Your task to perform on an android device: Go to eBay Image 0: 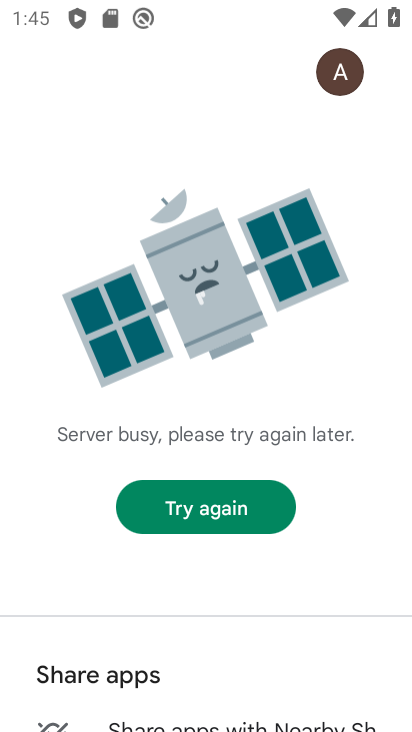
Step 0: press home button
Your task to perform on an android device: Go to eBay Image 1: 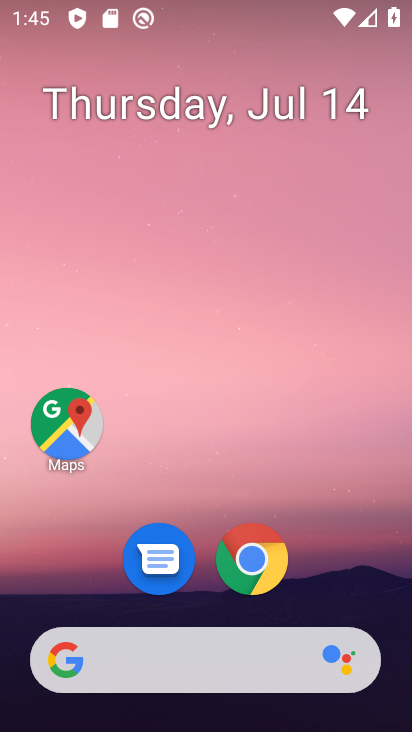
Step 1: drag from (229, 688) to (287, 193)
Your task to perform on an android device: Go to eBay Image 2: 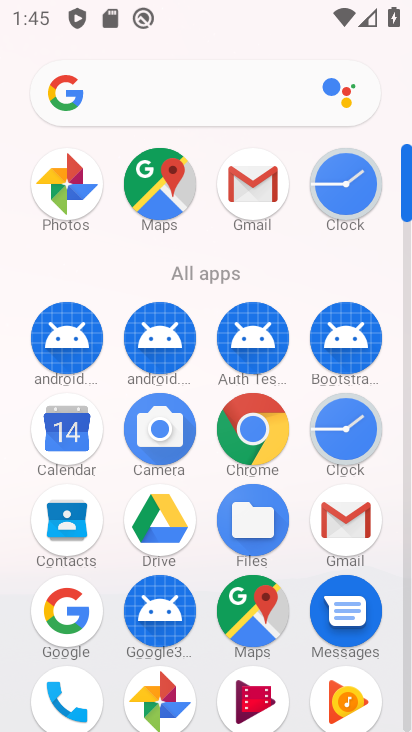
Step 2: click (252, 441)
Your task to perform on an android device: Go to eBay Image 3: 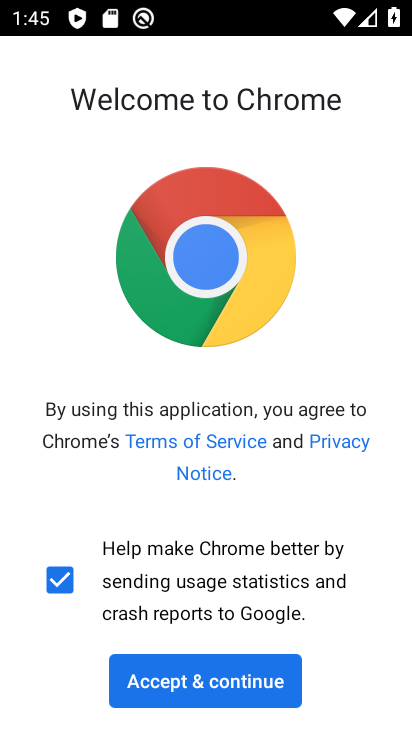
Step 3: click (208, 689)
Your task to perform on an android device: Go to eBay Image 4: 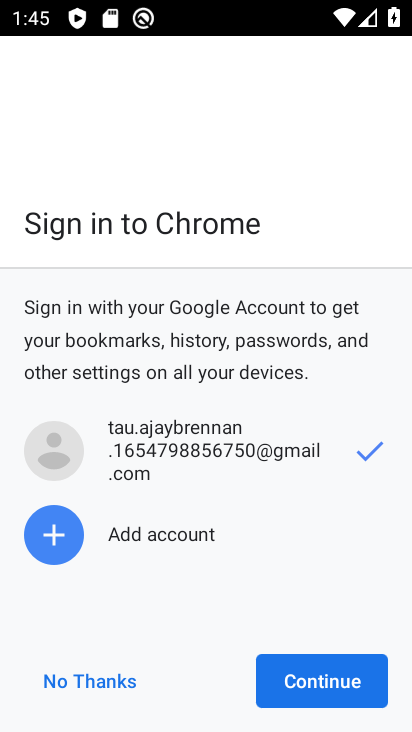
Step 4: click (293, 678)
Your task to perform on an android device: Go to eBay Image 5: 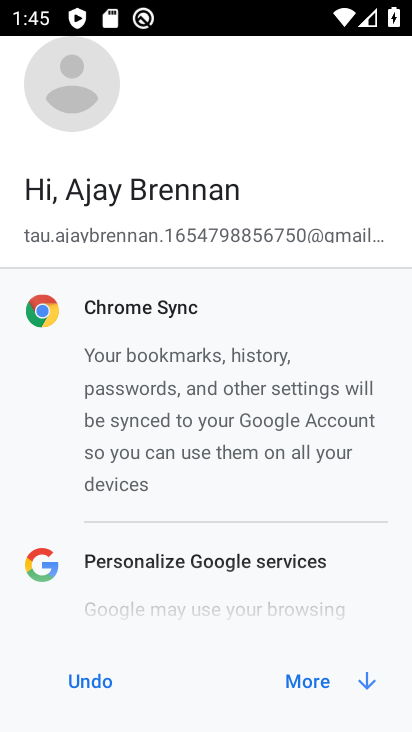
Step 5: click (298, 679)
Your task to perform on an android device: Go to eBay Image 6: 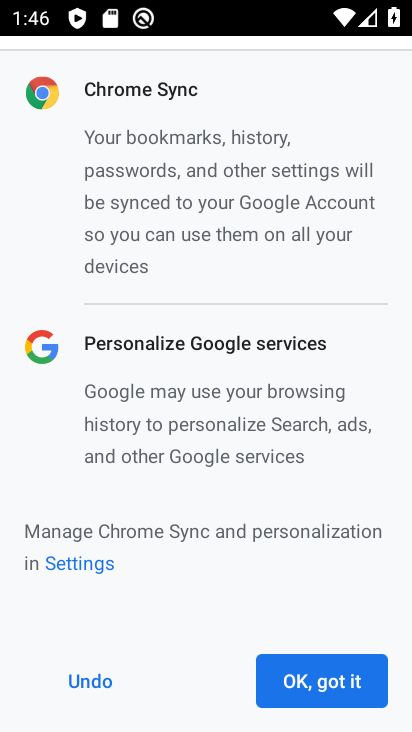
Step 6: click (297, 692)
Your task to perform on an android device: Go to eBay Image 7: 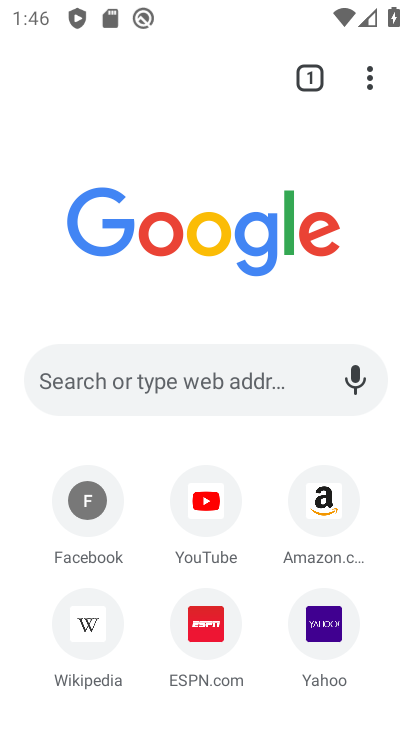
Step 7: click (167, 380)
Your task to perform on an android device: Go to eBay Image 8: 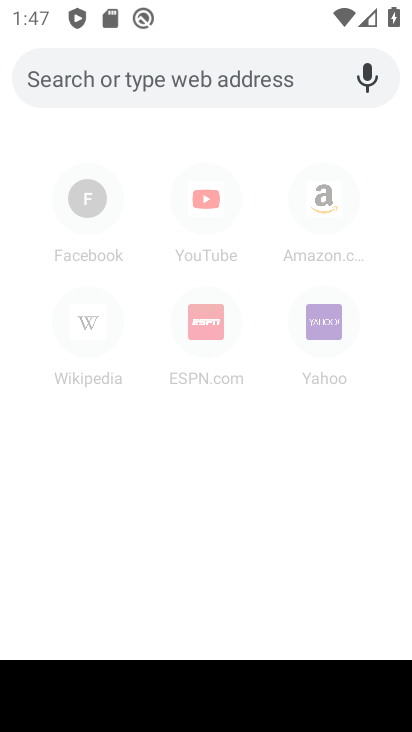
Step 8: type "ebay"
Your task to perform on an android device: Go to eBay Image 9: 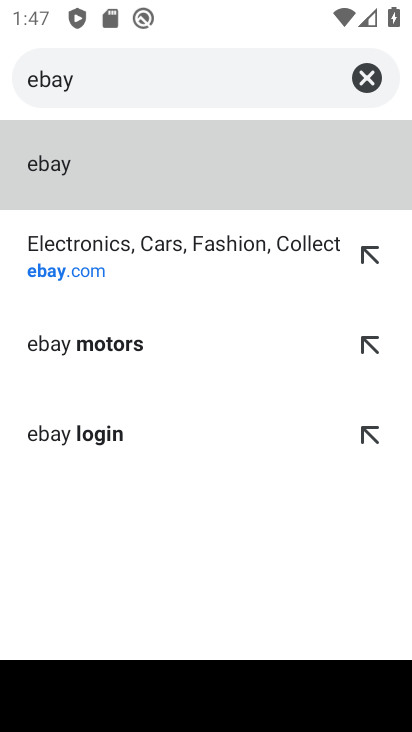
Step 9: click (180, 254)
Your task to perform on an android device: Go to eBay Image 10: 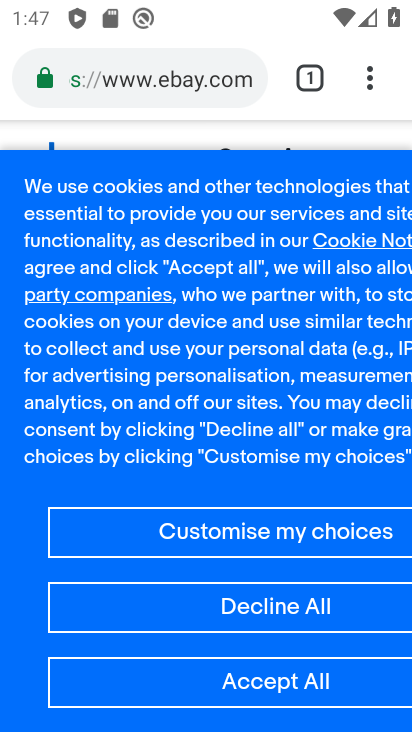
Step 10: task complete